Your task to perform on an android device: turn off javascript in the chrome app Image 0: 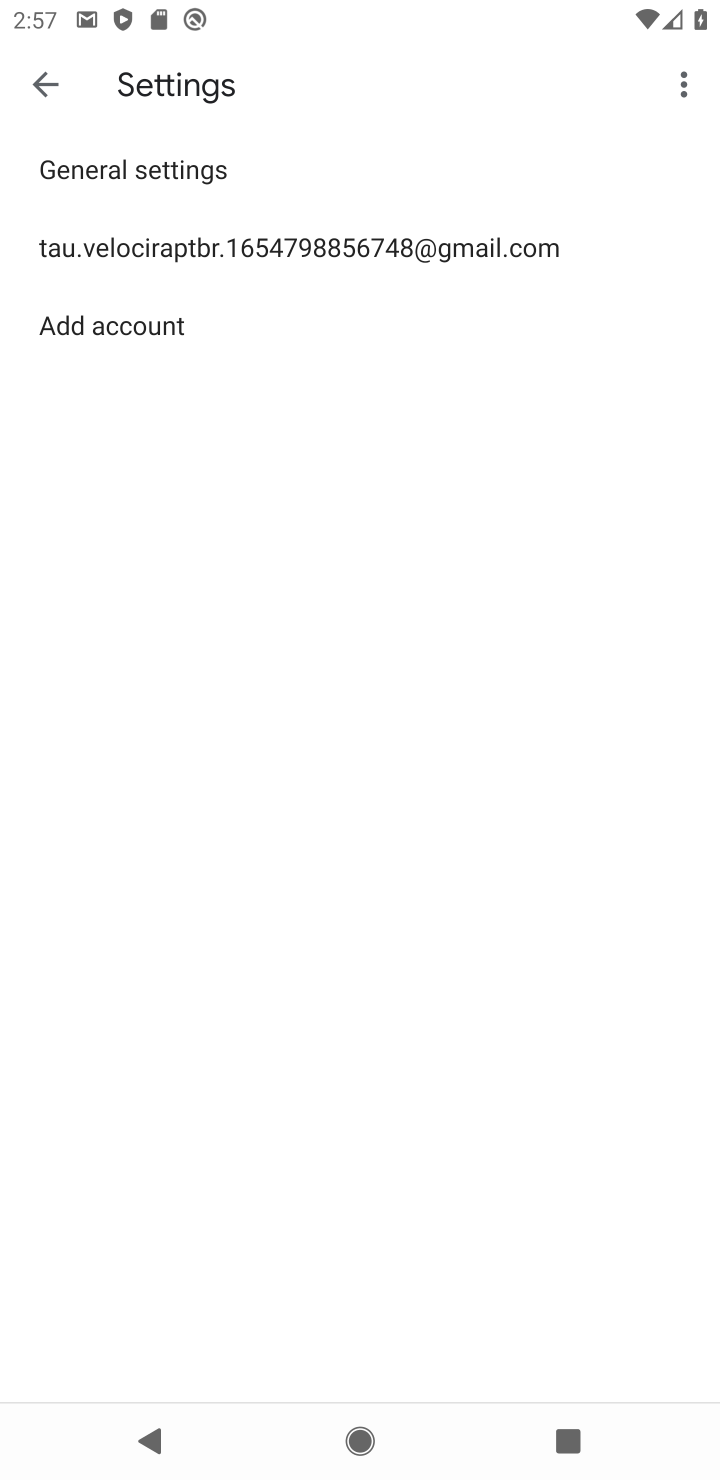
Step 0: press back button
Your task to perform on an android device: turn off javascript in the chrome app Image 1: 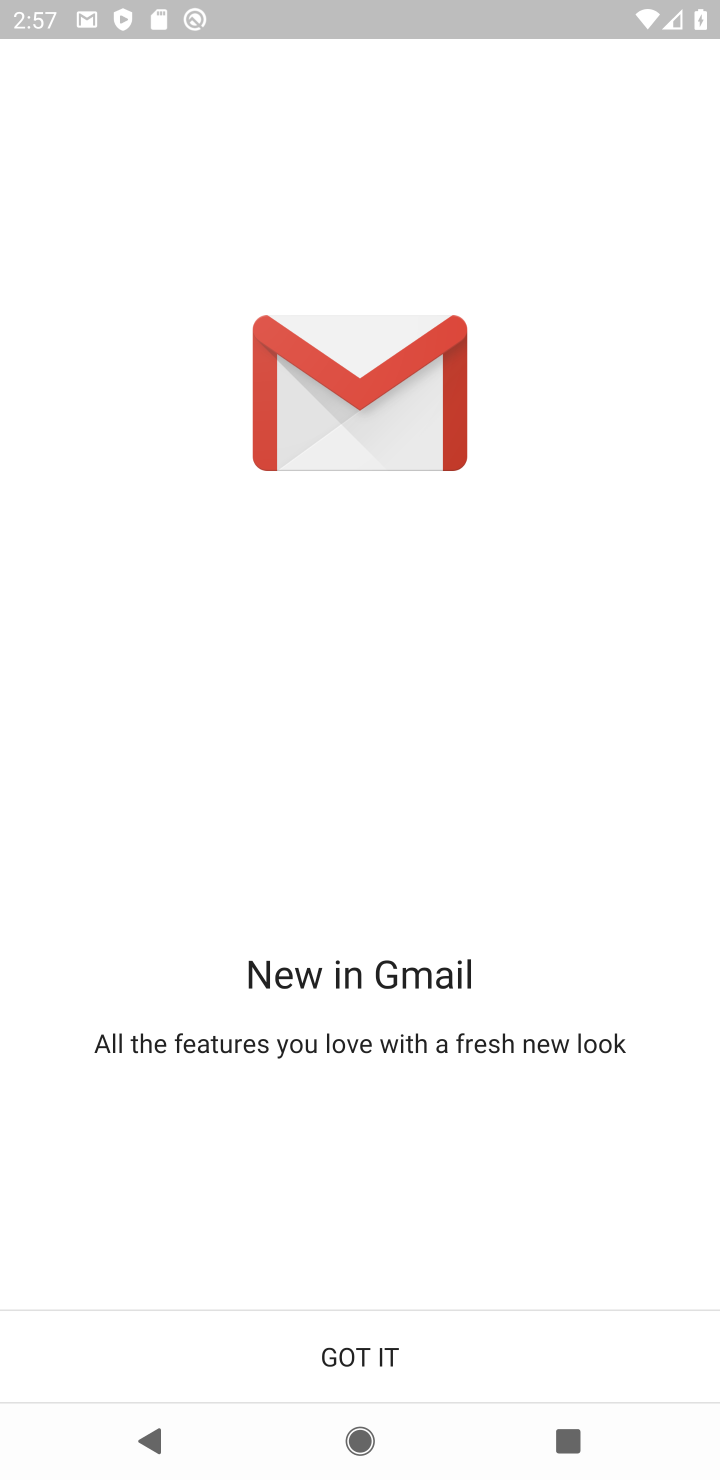
Step 1: press back button
Your task to perform on an android device: turn off javascript in the chrome app Image 2: 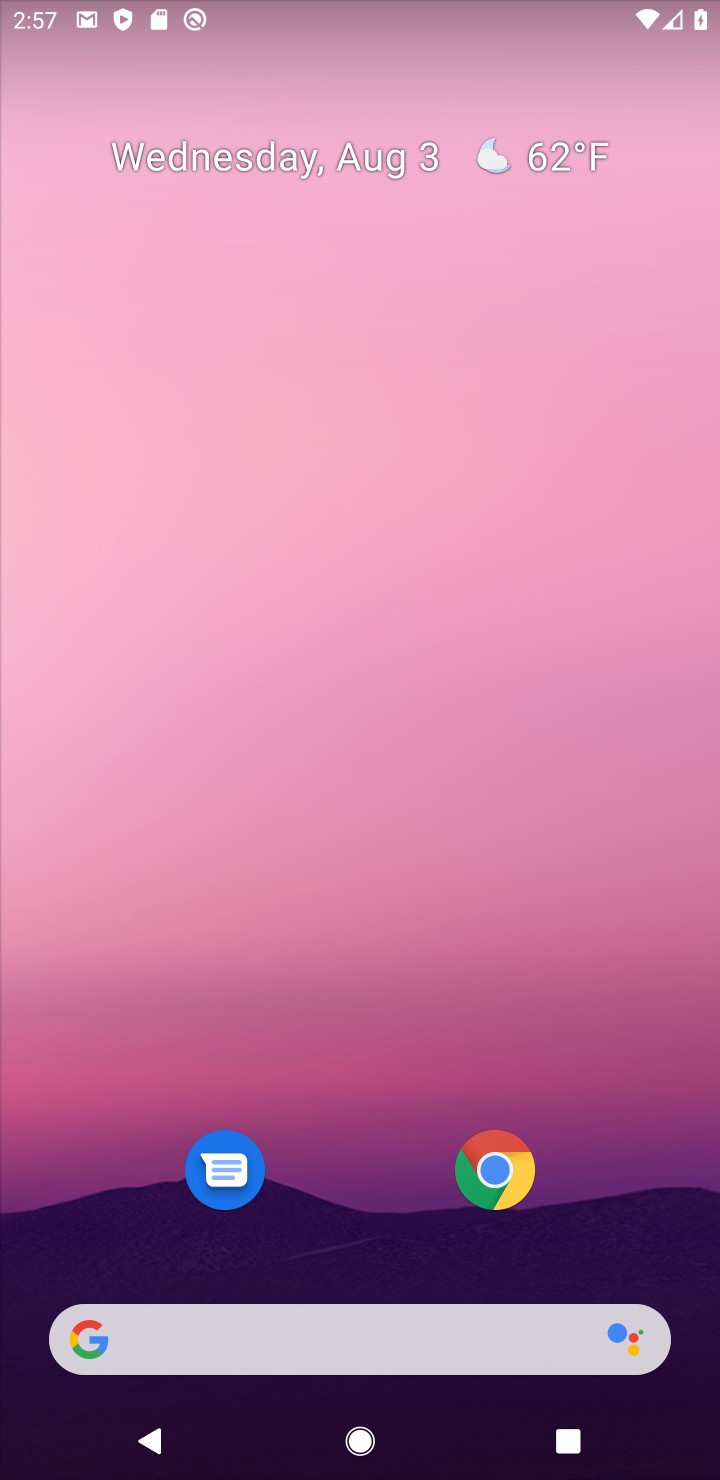
Step 2: click (479, 1168)
Your task to perform on an android device: turn off javascript in the chrome app Image 3: 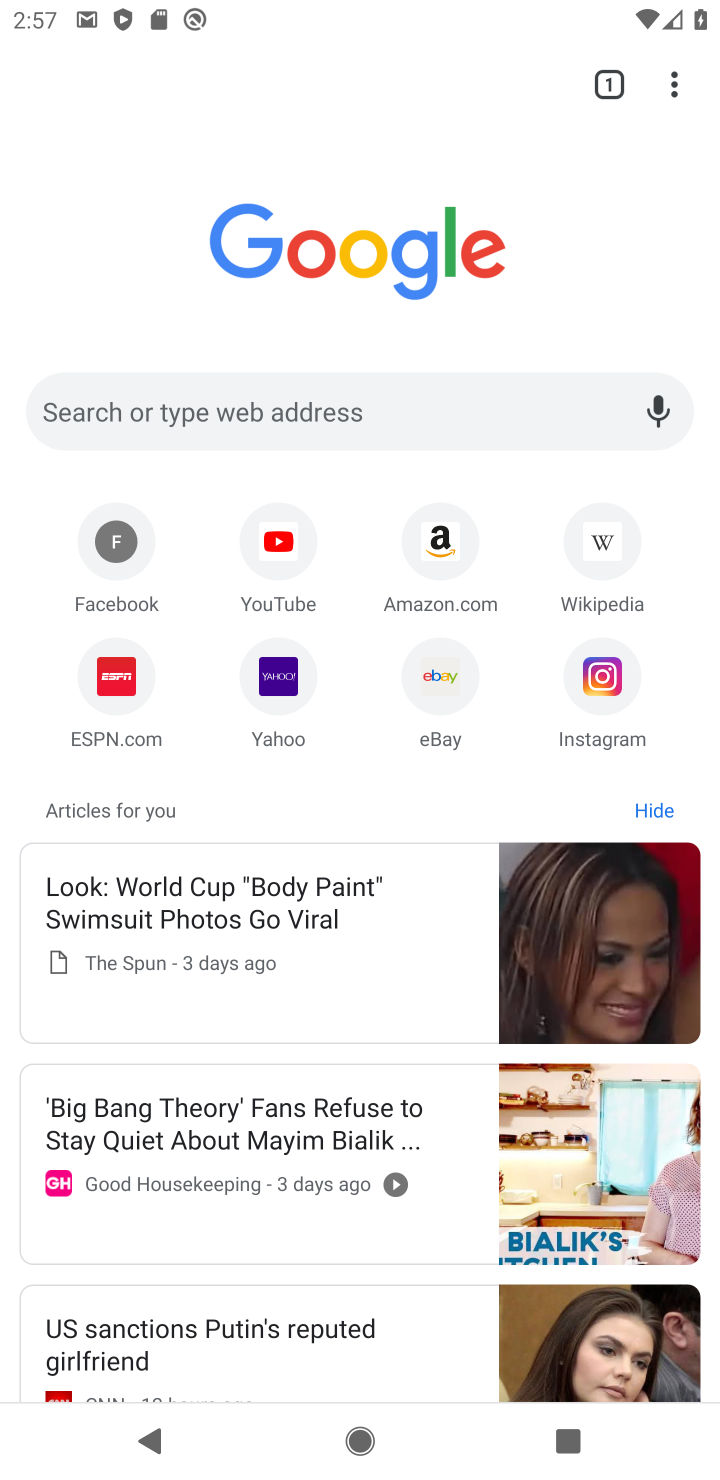
Step 3: click (671, 96)
Your task to perform on an android device: turn off javascript in the chrome app Image 4: 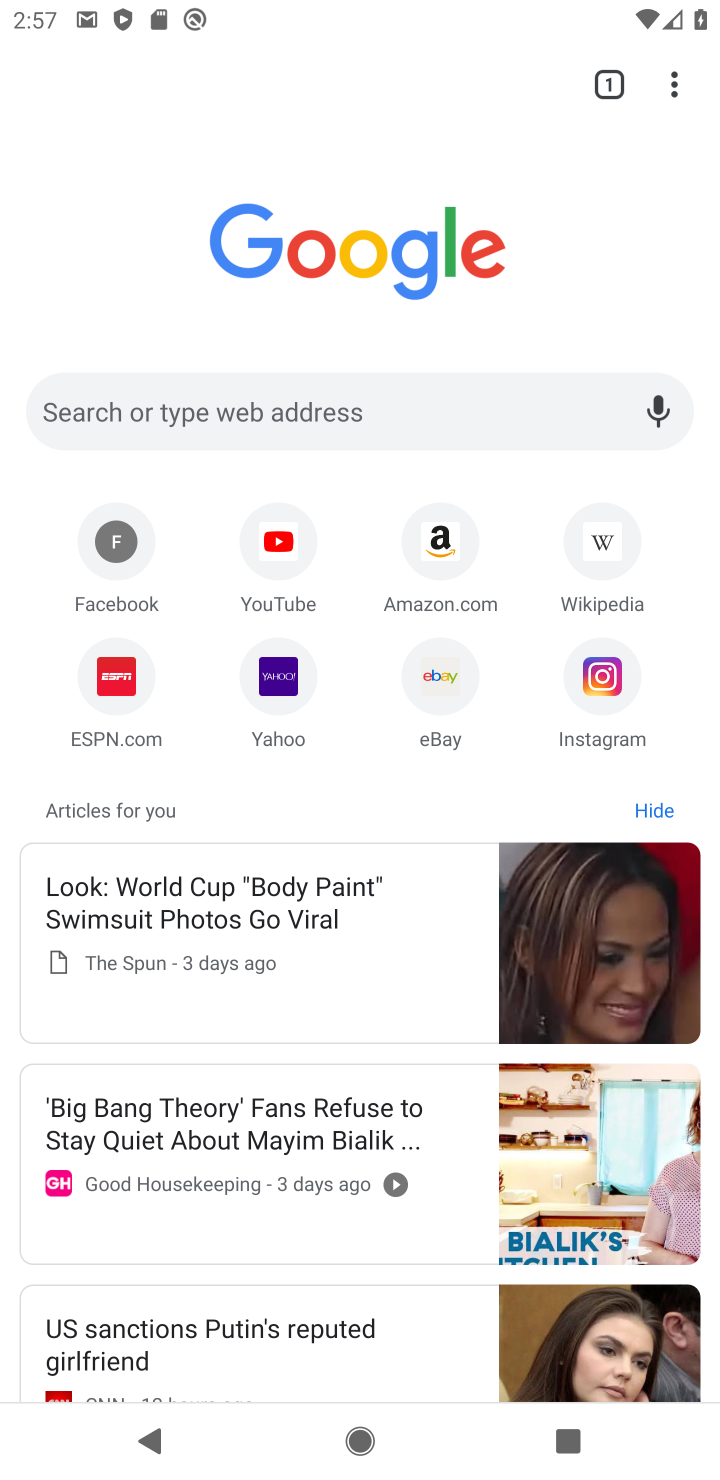
Step 4: click (671, 96)
Your task to perform on an android device: turn off javascript in the chrome app Image 5: 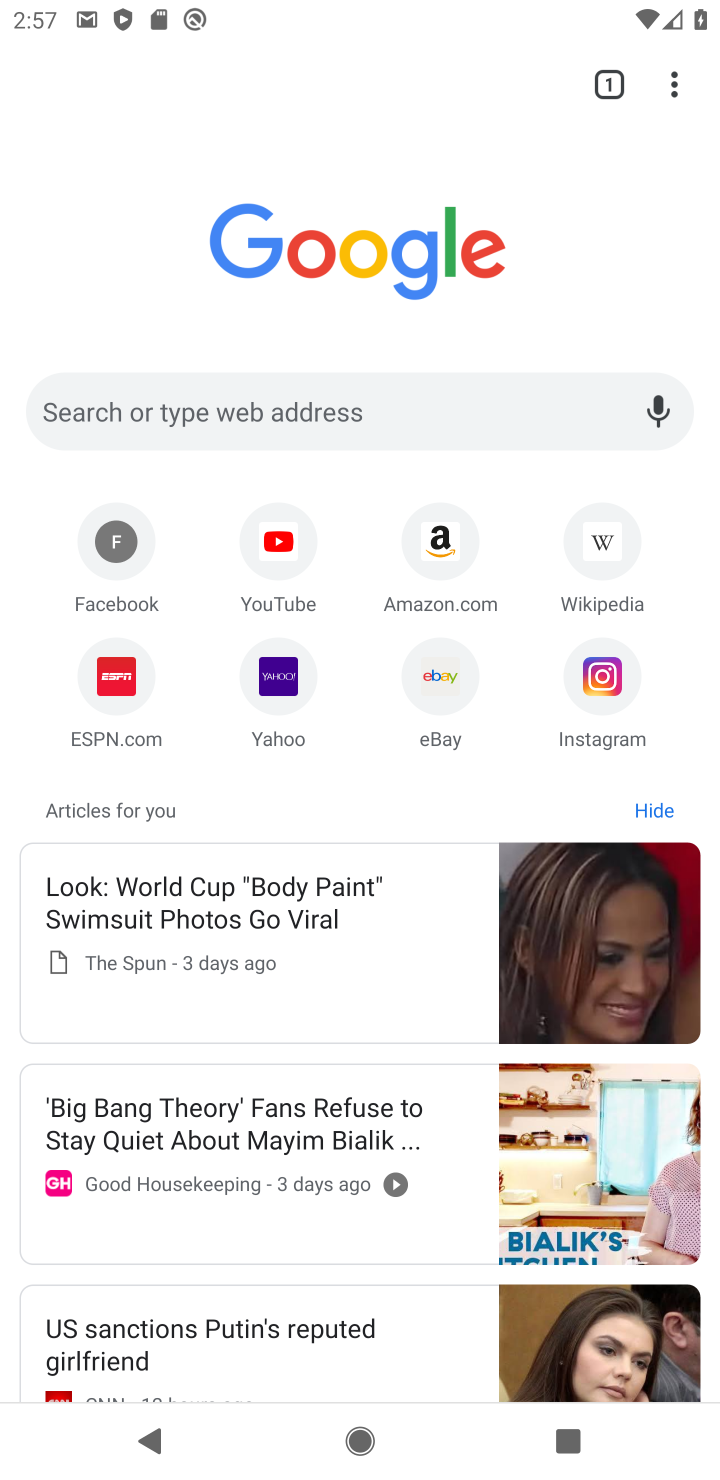
Step 5: click (674, 95)
Your task to perform on an android device: turn off javascript in the chrome app Image 6: 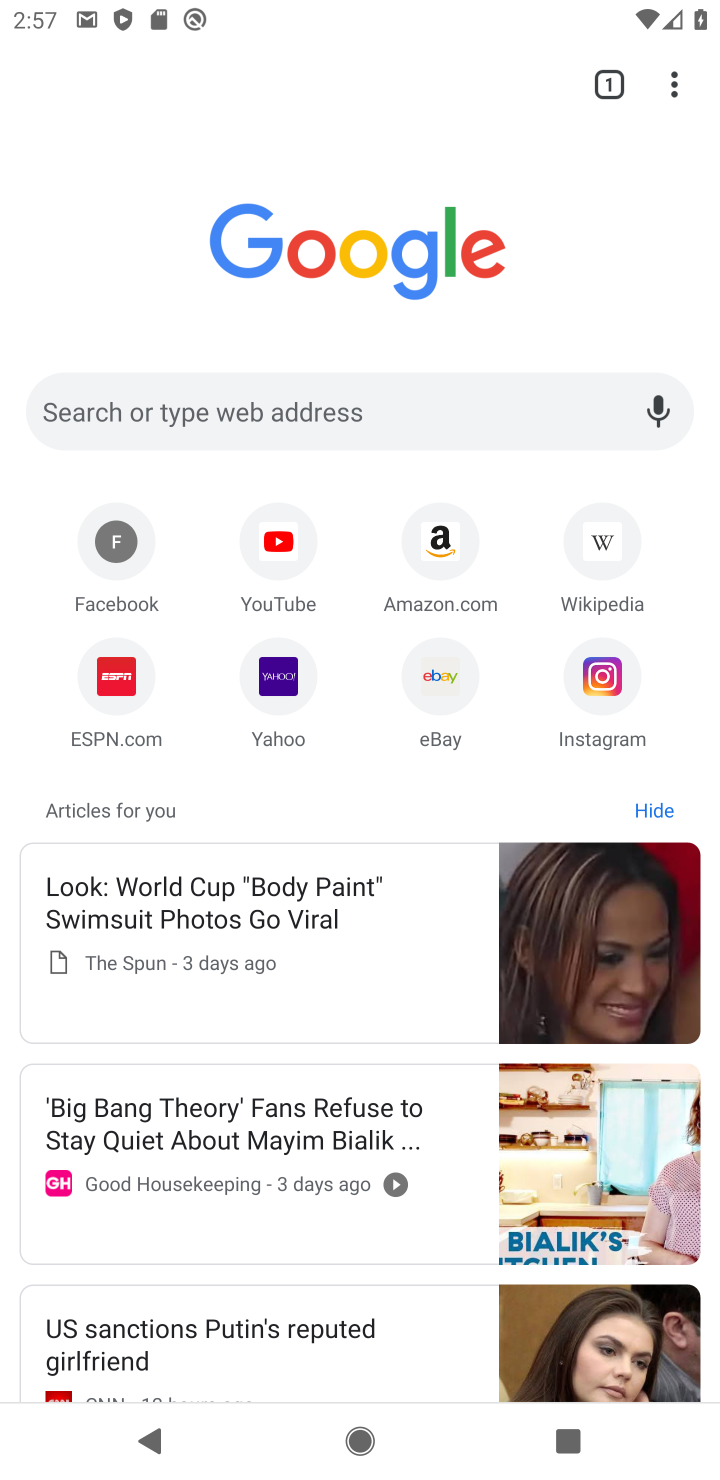
Step 6: click (675, 91)
Your task to perform on an android device: turn off javascript in the chrome app Image 7: 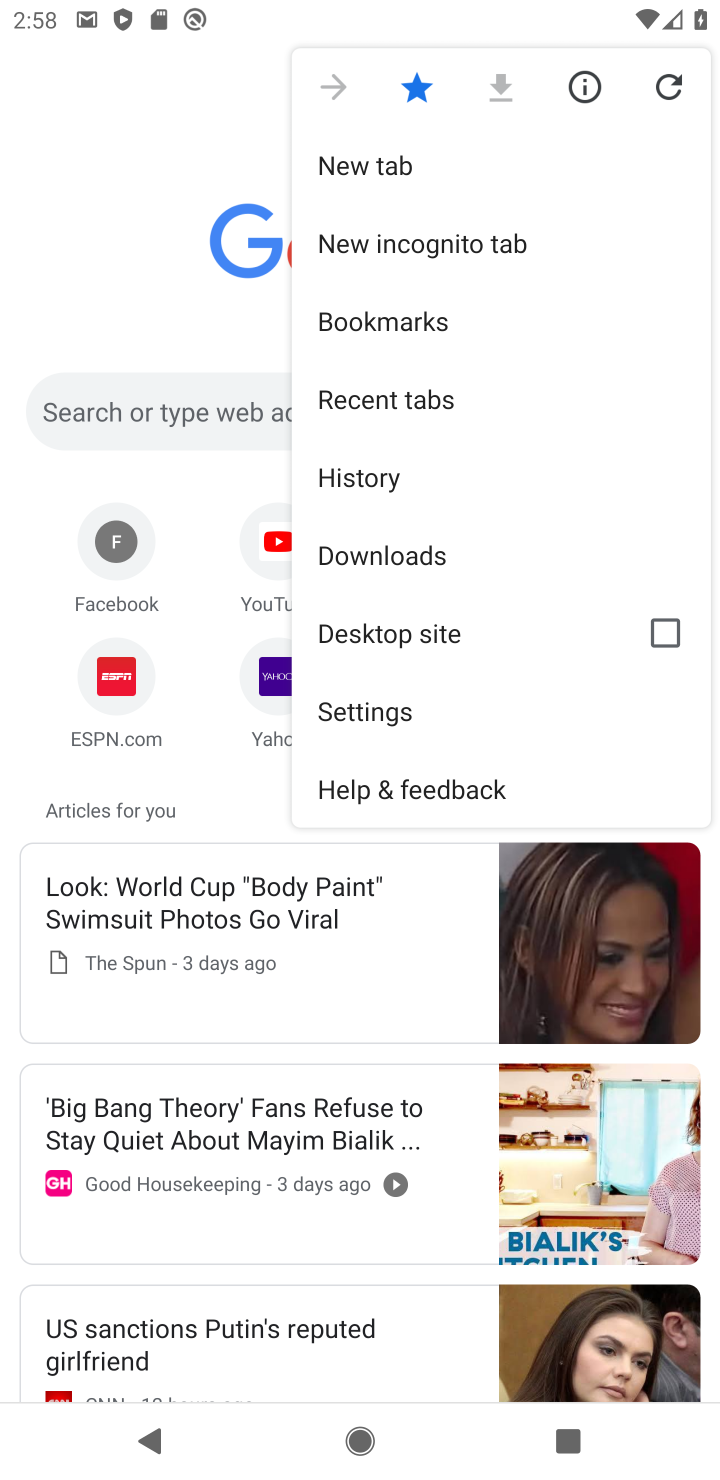
Step 7: click (370, 708)
Your task to perform on an android device: turn off javascript in the chrome app Image 8: 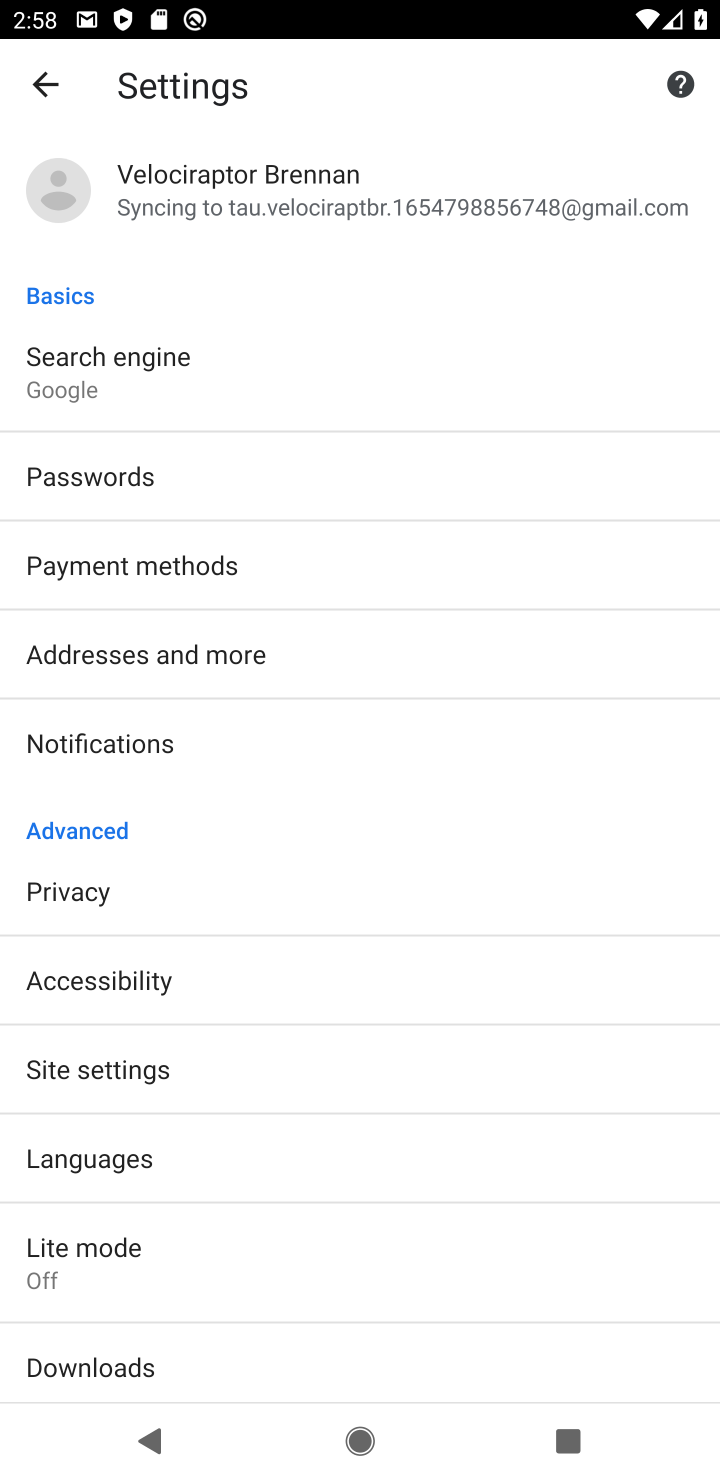
Step 8: click (135, 1052)
Your task to perform on an android device: turn off javascript in the chrome app Image 9: 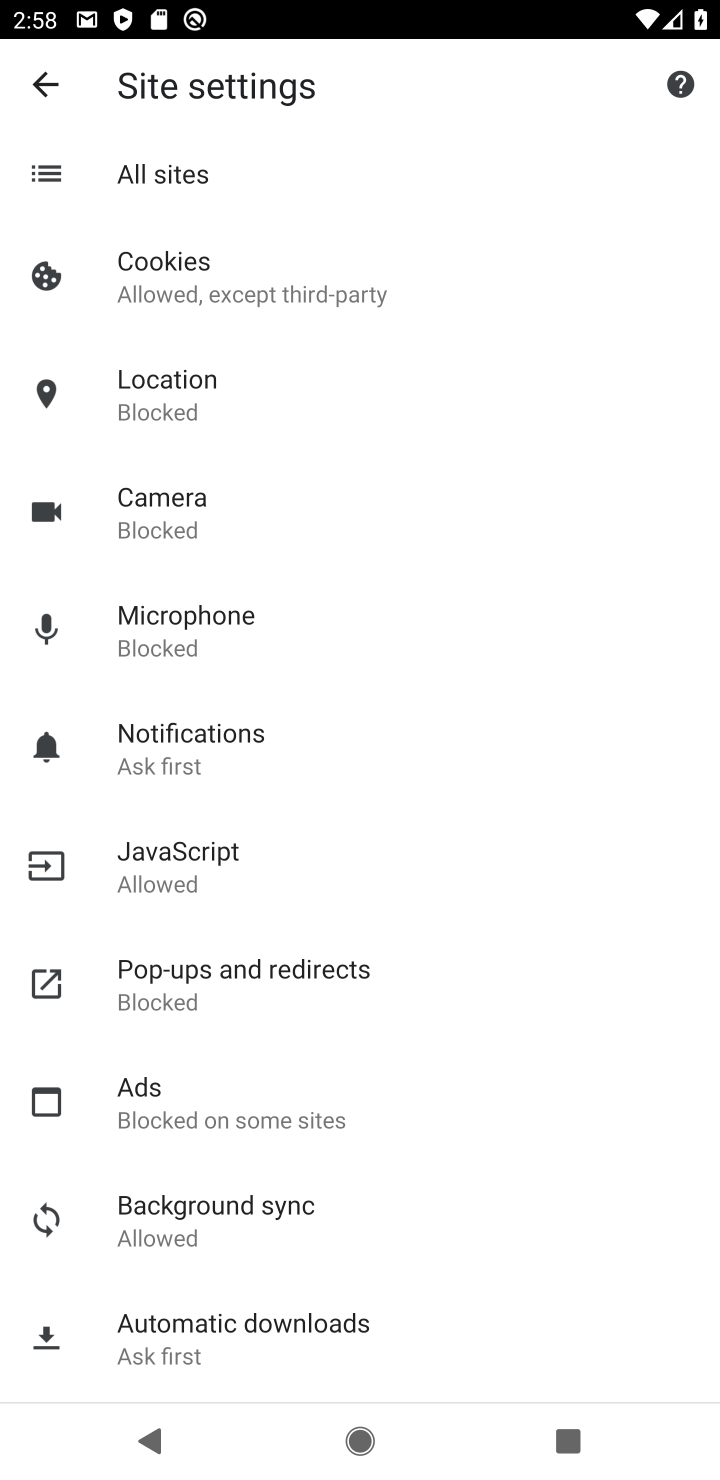
Step 9: click (176, 870)
Your task to perform on an android device: turn off javascript in the chrome app Image 10: 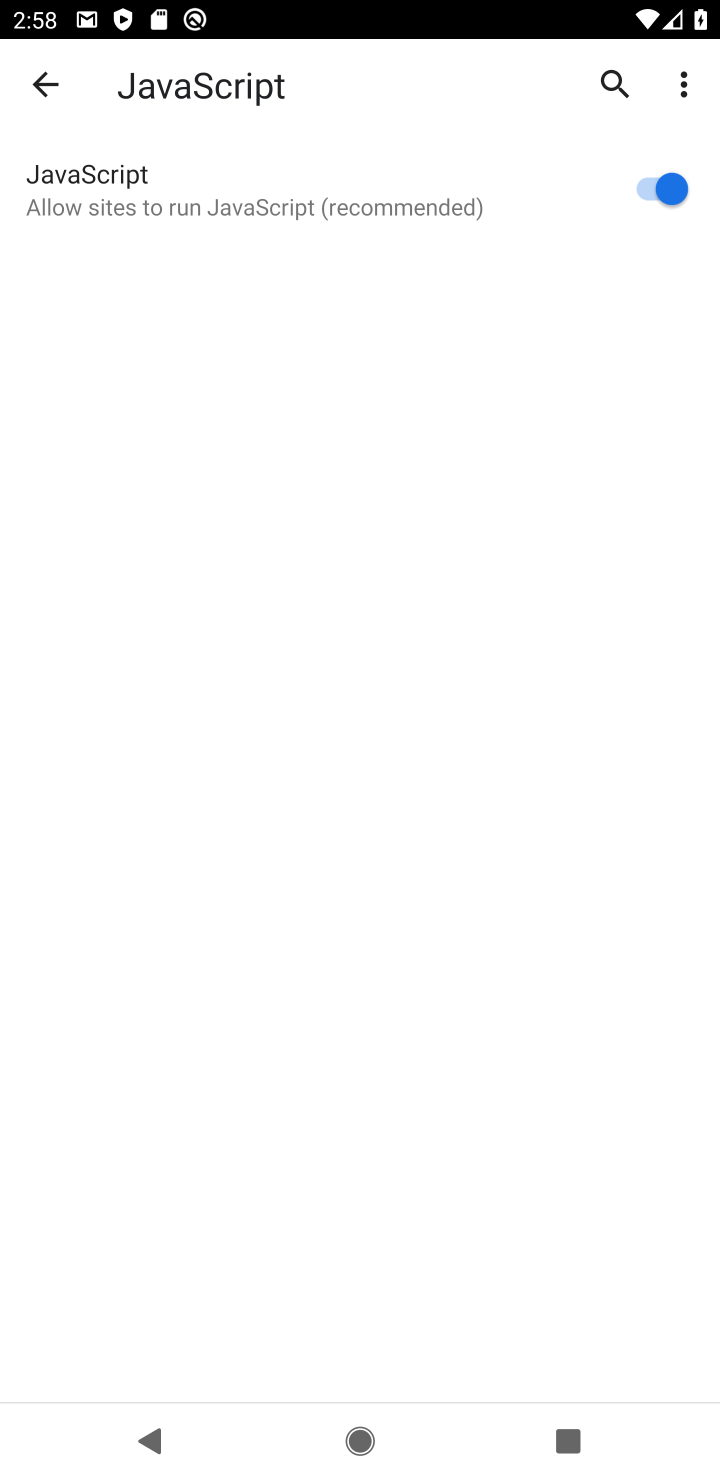
Step 10: click (647, 180)
Your task to perform on an android device: turn off javascript in the chrome app Image 11: 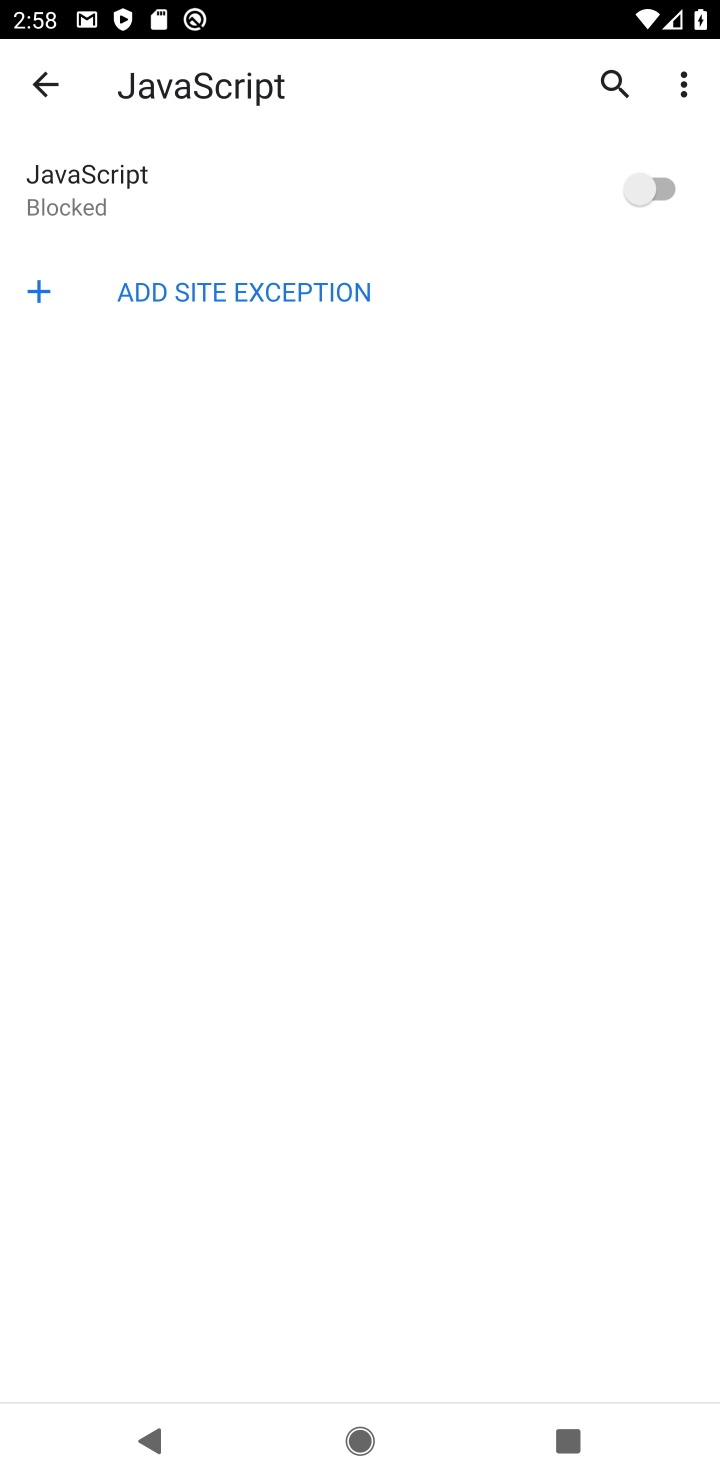
Step 11: task complete